Your task to perform on an android device: turn on wifi Image 0: 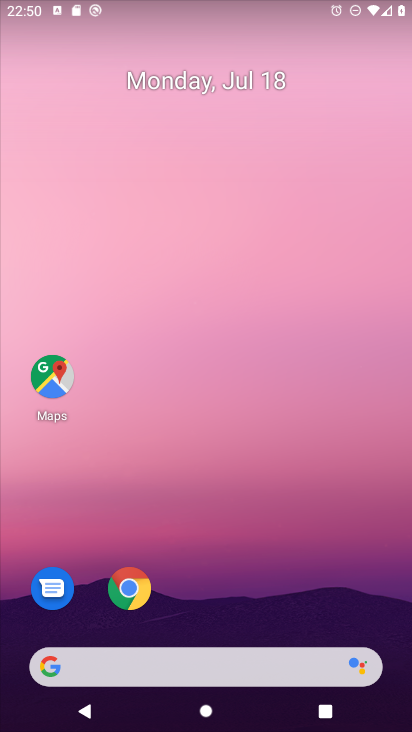
Step 0: drag from (385, 611) to (319, 142)
Your task to perform on an android device: turn on wifi Image 1: 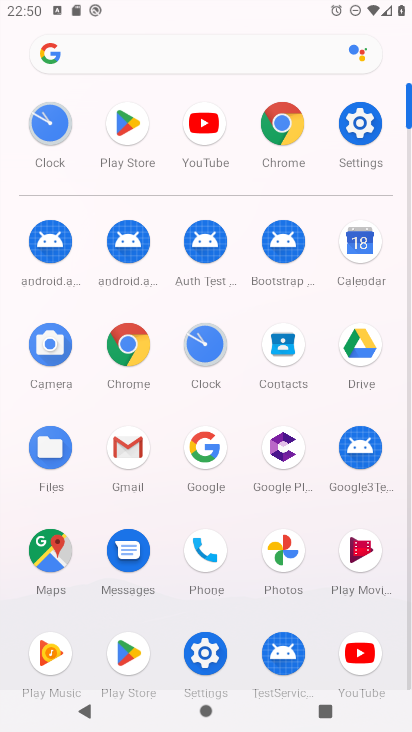
Step 1: click (206, 653)
Your task to perform on an android device: turn on wifi Image 2: 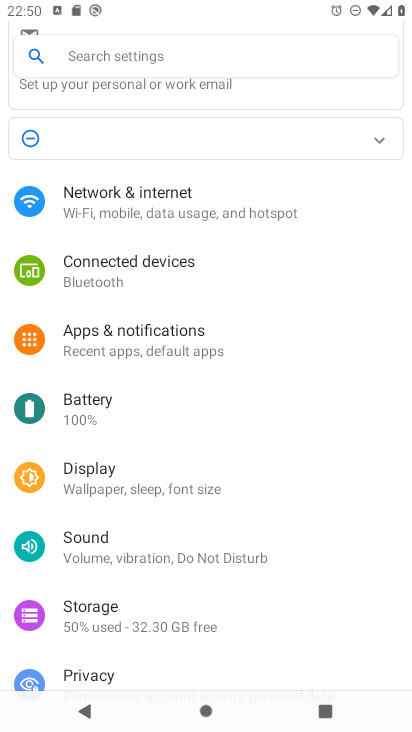
Step 2: click (122, 198)
Your task to perform on an android device: turn on wifi Image 3: 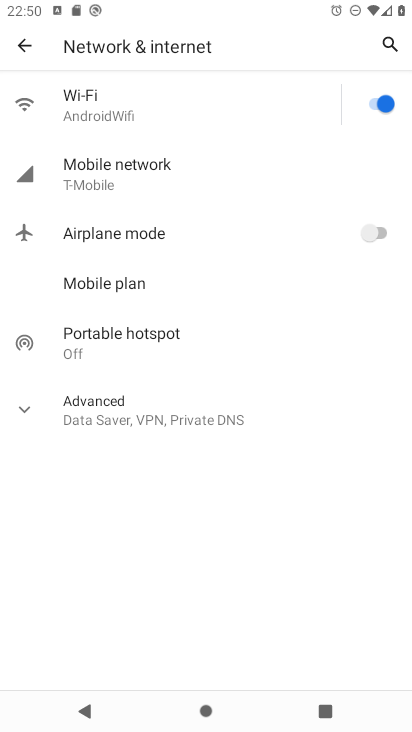
Step 3: task complete